Your task to perform on an android device: toggle airplane mode Image 0: 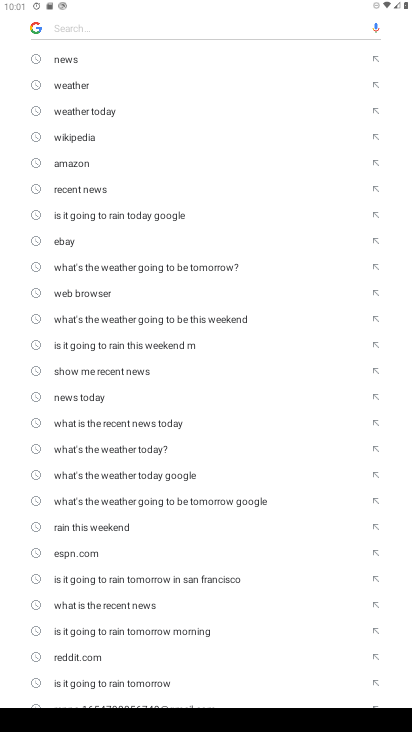
Step 0: press home button
Your task to perform on an android device: toggle airplane mode Image 1: 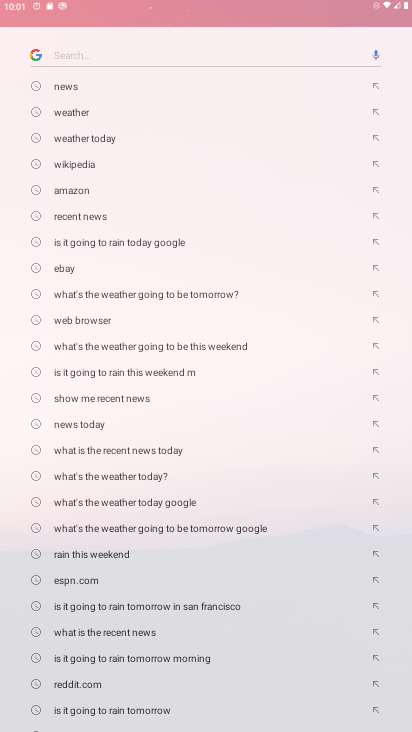
Step 1: drag from (374, 669) to (205, 62)
Your task to perform on an android device: toggle airplane mode Image 2: 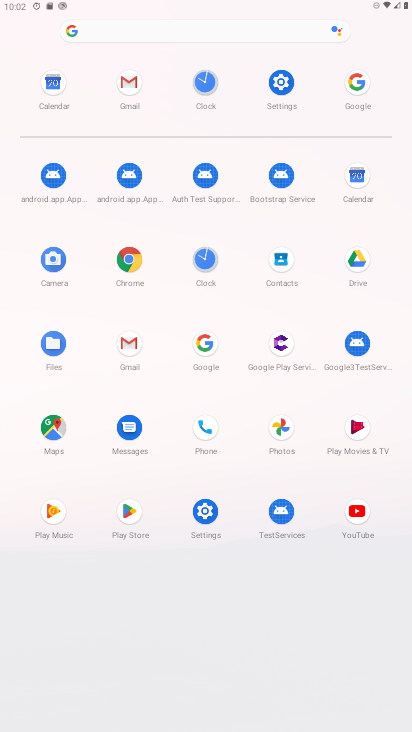
Step 2: drag from (290, 19) to (300, 699)
Your task to perform on an android device: toggle airplane mode Image 3: 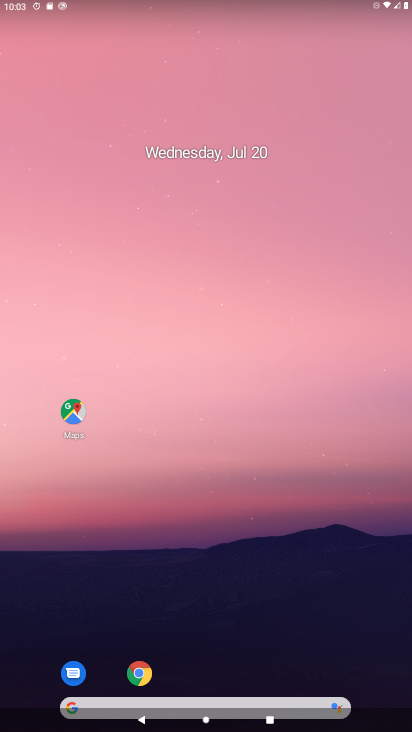
Step 3: drag from (195, 6) to (272, 512)
Your task to perform on an android device: toggle airplane mode Image 4: 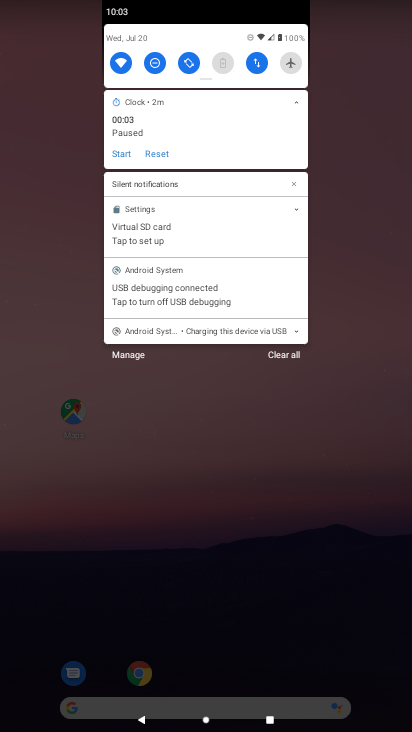
Step 4: click (287, 66)
Your task to perform on an android device: toggle airplane mode Image 5: 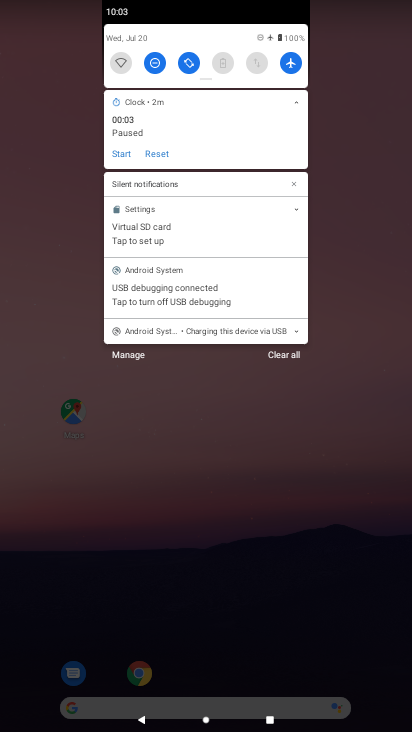
Step 5: task complete